Your task to perform on an android device: Open Wikipedia Image 0: 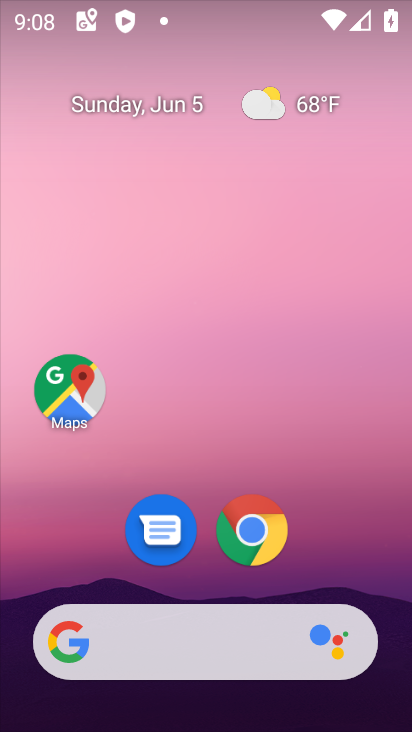
Step 0: click (255, 529)
Your task to perform on an android device: Open Wikipedia Image 1: 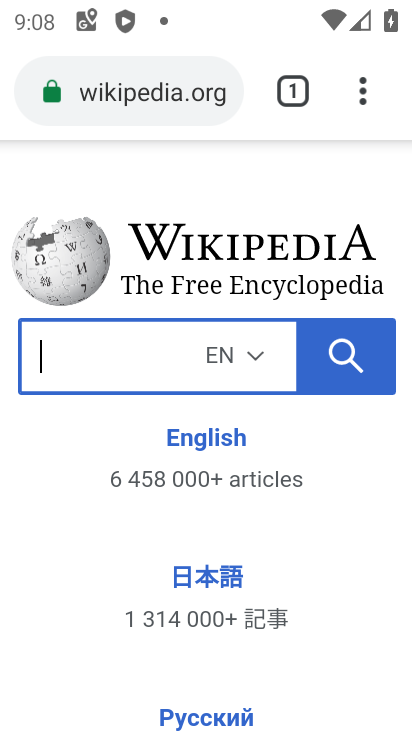
Step 1: click (245, 191)
Your task to perform on an android device: Open Wikipedia Image 2: 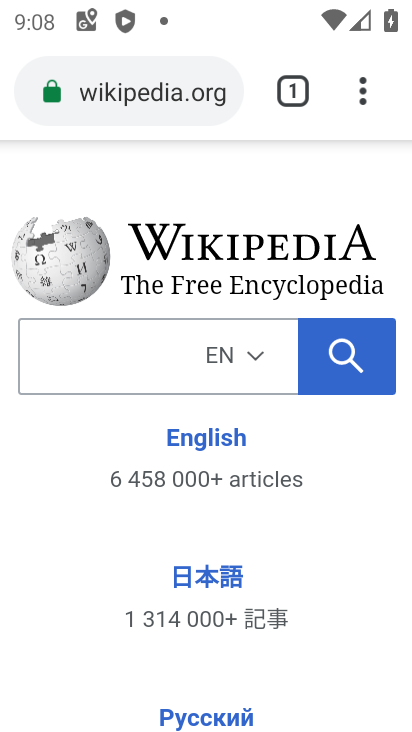
Step 2: task complete